Your task to perform on an android device: turn off data saver in the chrome app Image 0: 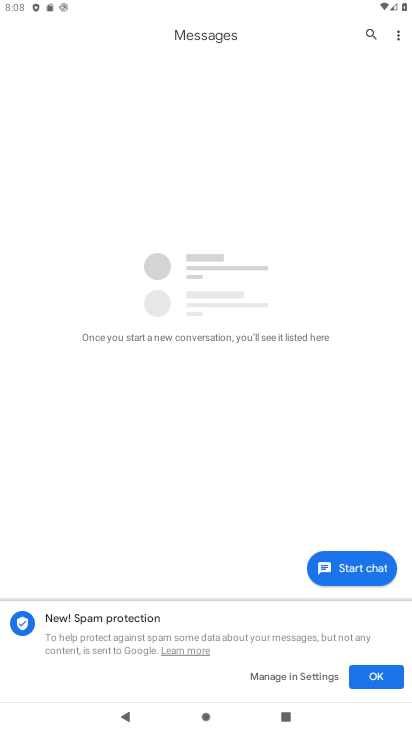
Step 0: press home button
Your task to perform on an android device: turn off data saver in the chrome app Image 1: 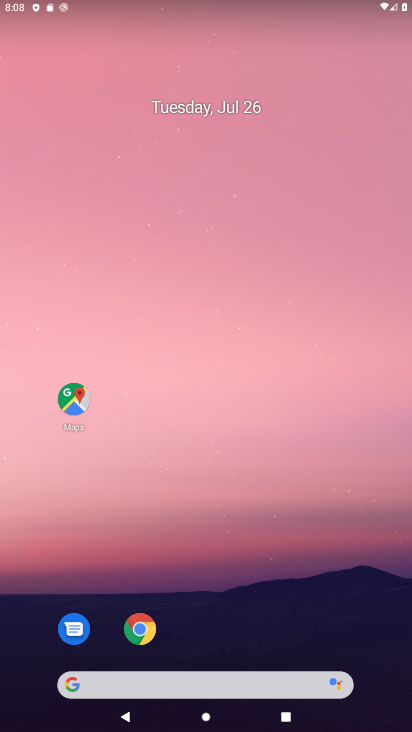
Step 1: click (141, 631)
Your task to perform on an android device: turn off data saver in the chrome app Image 2: 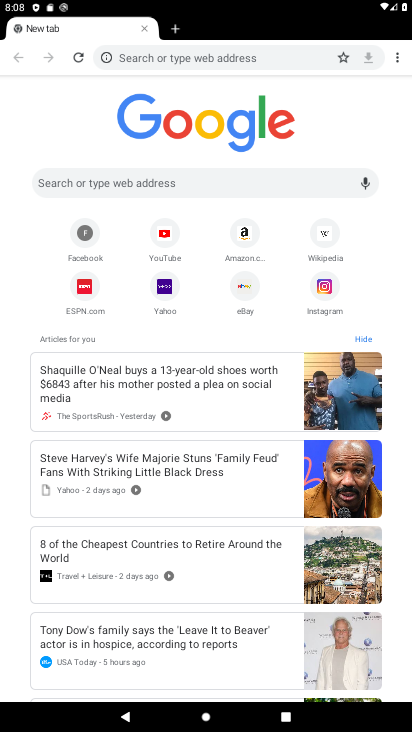
Step 2: click (391, 66)
Your task to perform on an android device: turn off data saver in the chrome app Image 3: 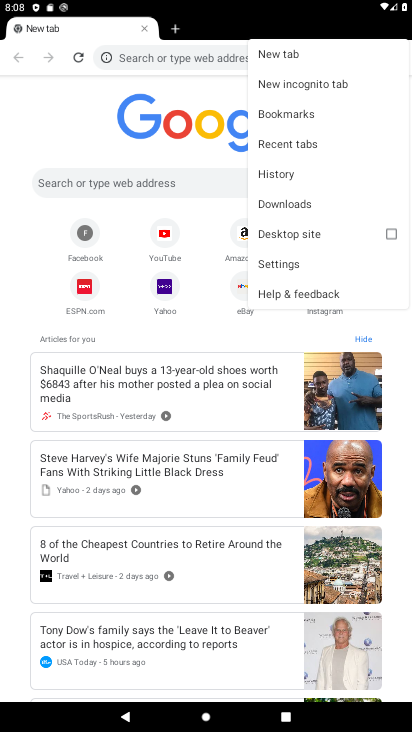
Step 3: click (274, 258)
Your task to perform on an android device: turn off data saver in the chrome app Image 4: 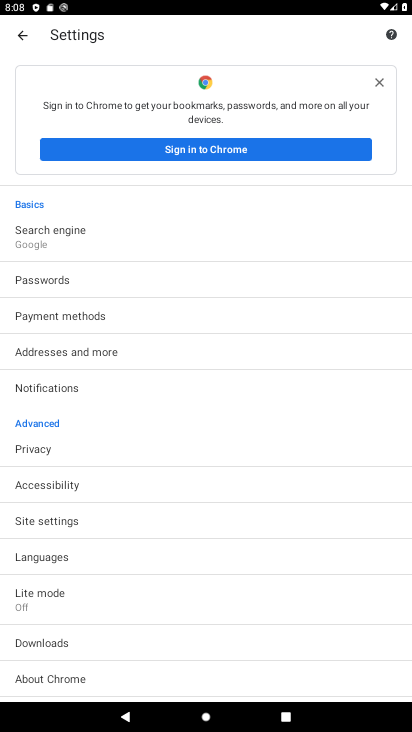
Step 4: click (83, 599)
Your task to perform on an android device: turn off data saver in the chrome app Image 5: 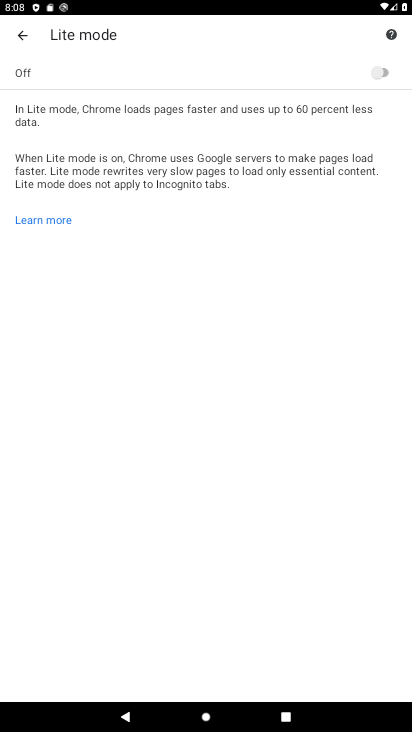
Step 5: task complete